Your task to perform on an android device: Open Google Maps Image 0: 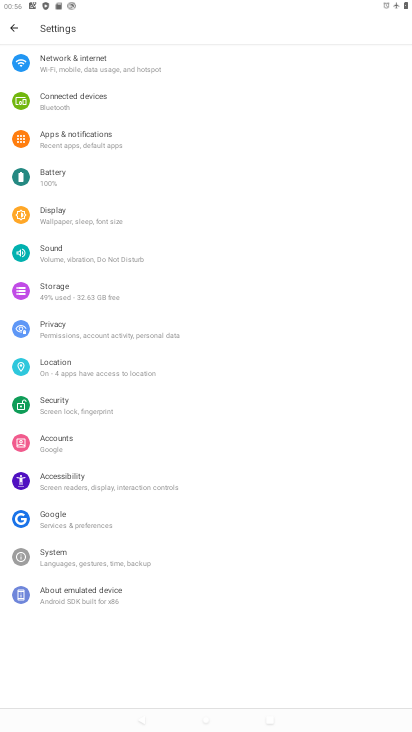
Step 0: press home button
Your task to perform on an android device: Open Google Maps Image 1: 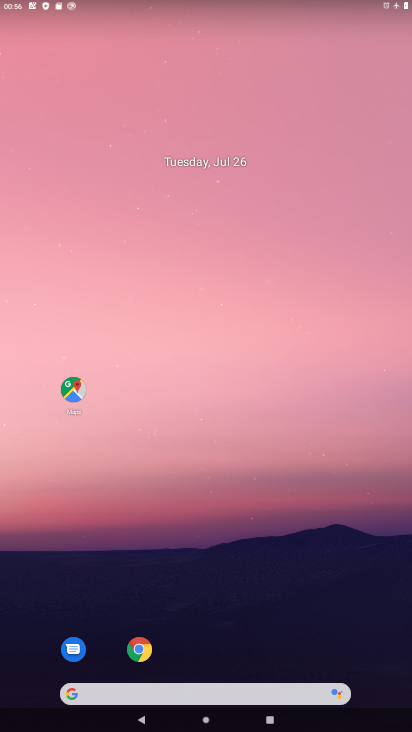
Step 1: drag from (188, 707) to (204, 142)
Your task to perform on an android device: Open Google Maps Image 2: 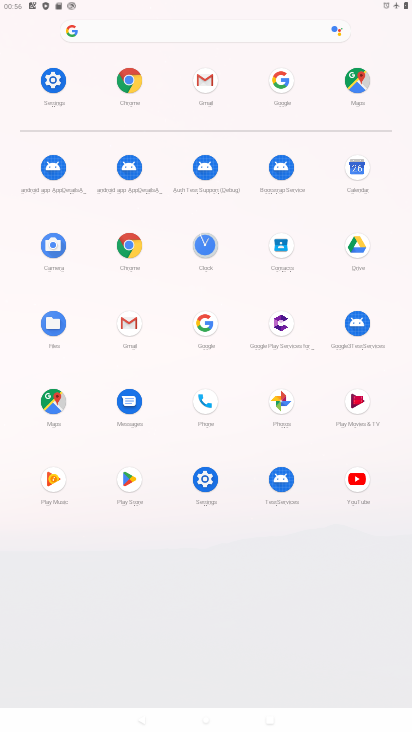
Step 2: click (54, 399)
Your task to perform on an android device: Open Google Maps Image 3: 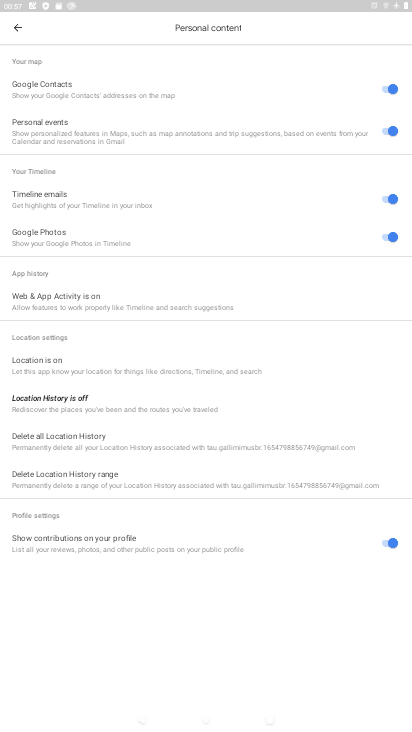
Step 3: click (16, 30)
Your task to perform on an android device: Open Google Maps Image 4: 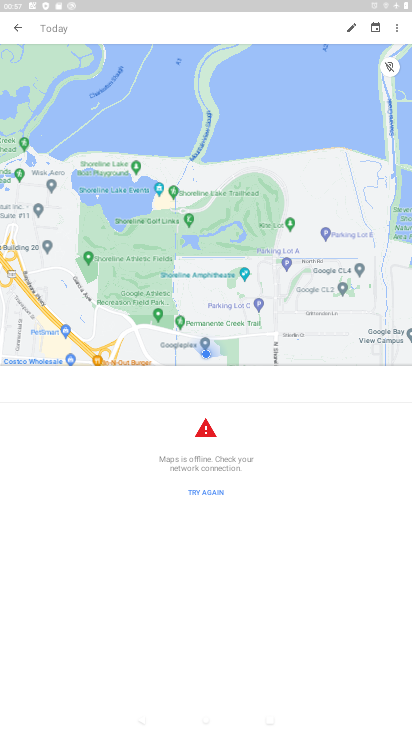
Step 4: click (14, 28)
Your task to perform on an android device: Open Google Maps Image 5: 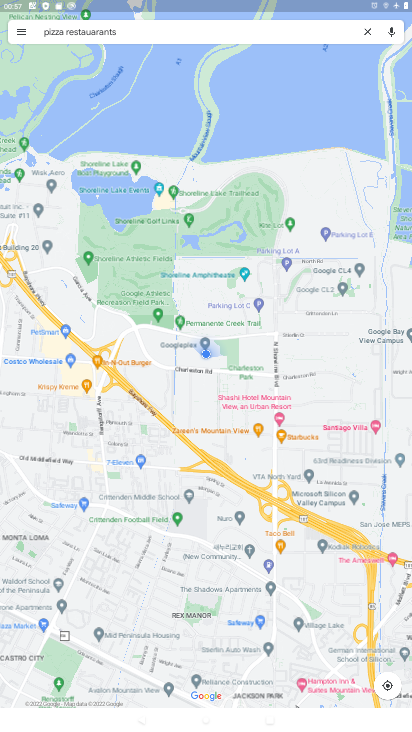
Step 5: task complete